Your task to perform on an android device: uninstall "Indeed Job Search" Image 0: 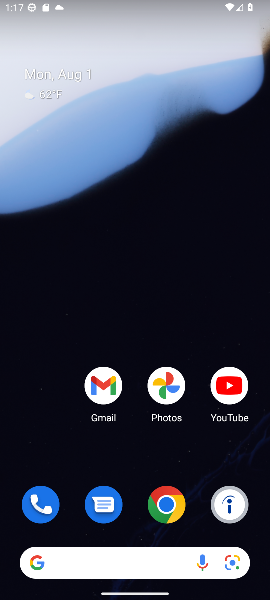
Step 0: drag from (108, 538) to (109, 62)
Your task to perform on an android device: uninstall "Indeed Job Search" Image 1: 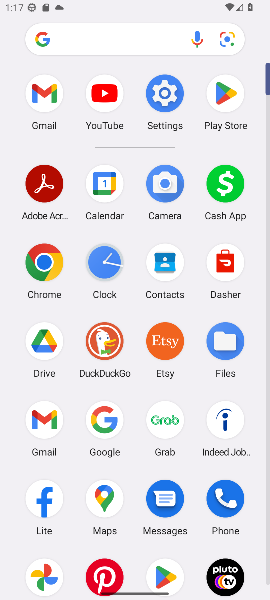
Step 1: click (217, 81)
Your task to perform on an android device: uninstall "Indeed Job Search" Image 2: 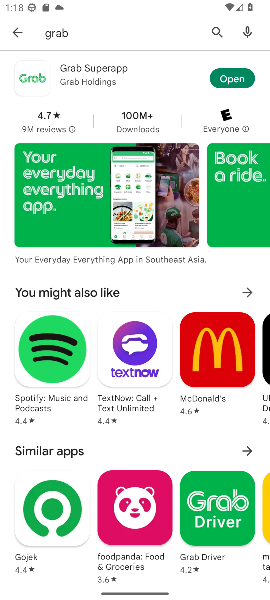
Step 2: click (215, 32)
Your task to perform on an android device: uninstall "Indeed Job Search" Image 3: 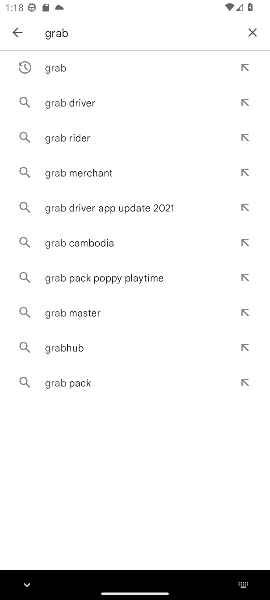
Step 3: click (255, 33)
Your task to perform on an android device: uninstall "Indeed Job Search" Image 4: 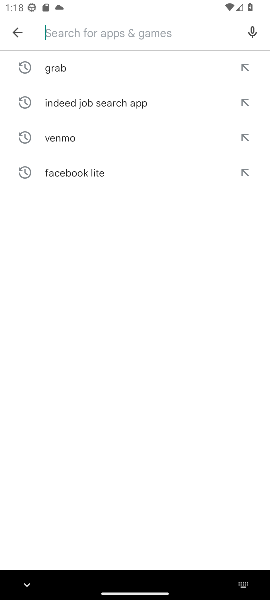
Step 4: type "indeed job search"
Your task to perform on an android device: uninstall "Indeed Job Search" Image 5: 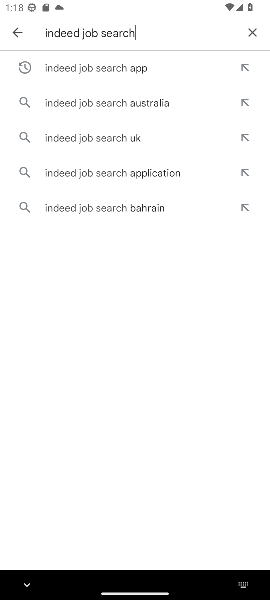
Step 5: click (161, 73)
Your task to perform on an android device: uninstall "Indeed Job Search" Image 6: 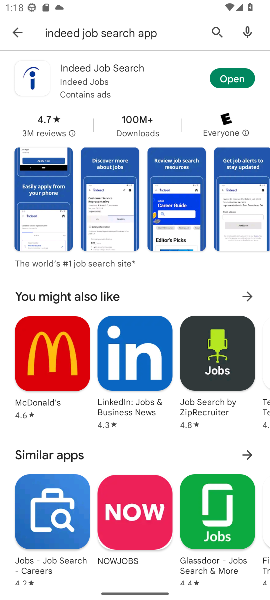
Step 6: task complete